Your task to perform on an android device: Open the Play Movies app and select the watchlist tab. Image 0: 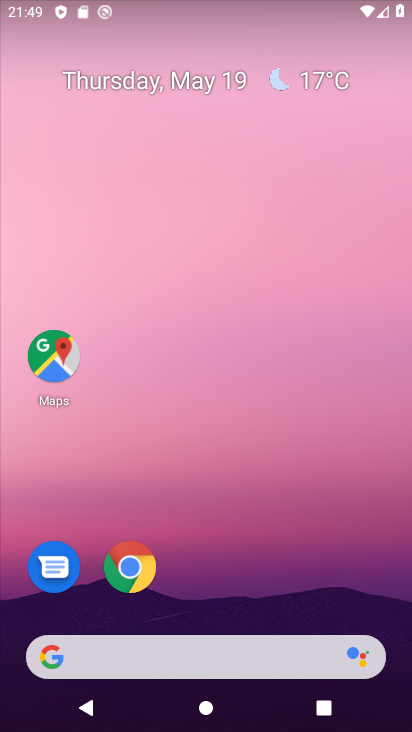
Step 0: drag from (392, 601) to (297, 74)
Your task to perform on an android device: Open the Play Movies app and select the watchlist tab. Image 1: 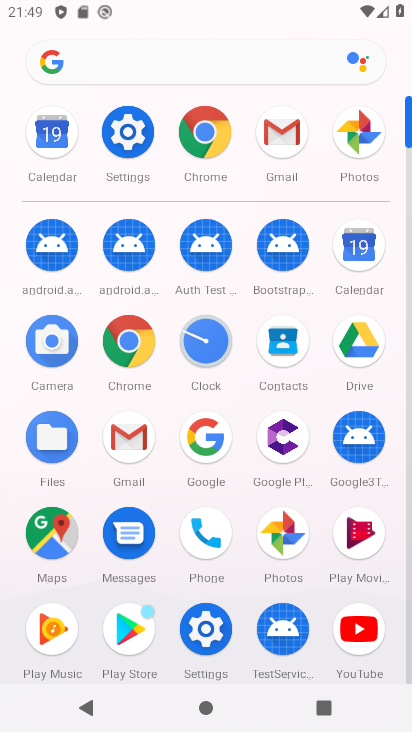
Step 1: click (347, 540)
Your task to perform on an android device: Open the Play Movies app and select the watchlist tab. Image 2: 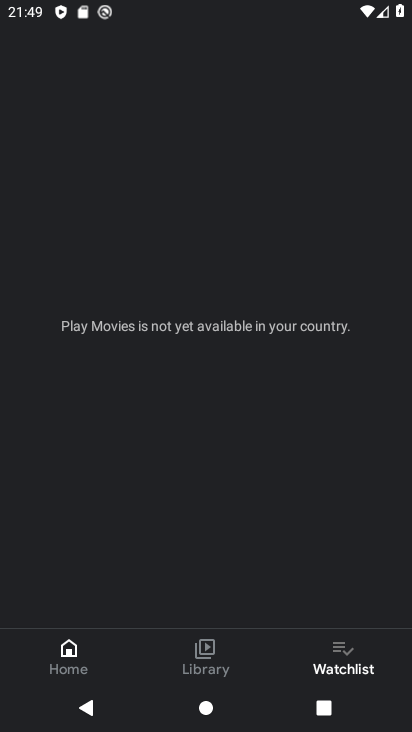
Step 2: click (358, 669)
Your task to perform on an android device: Open the Play Movies app and select the watchlist tab. Image 3: 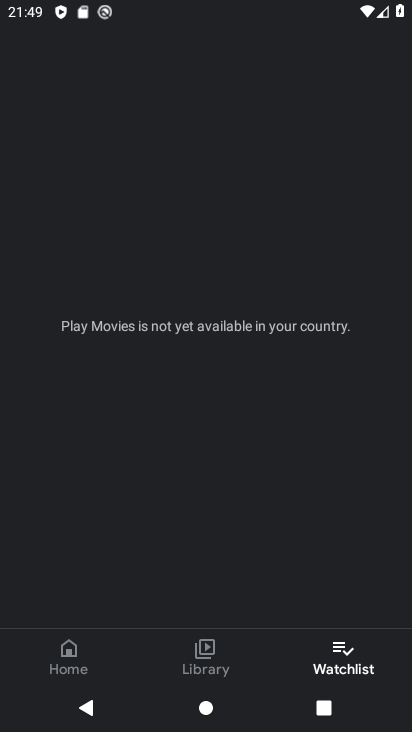
Step 3: task complete